Your task to perform on an android device: turn off translation in the chrome app Image 0: 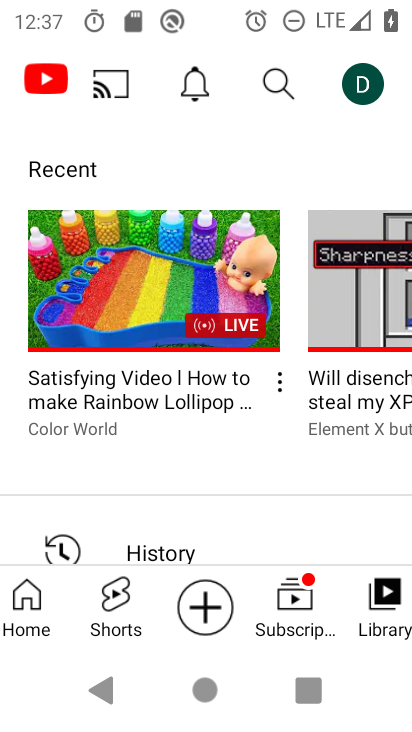
Step 0: press home button
Your task to perform on an android device: turn off translation in the chrome app Image 1: 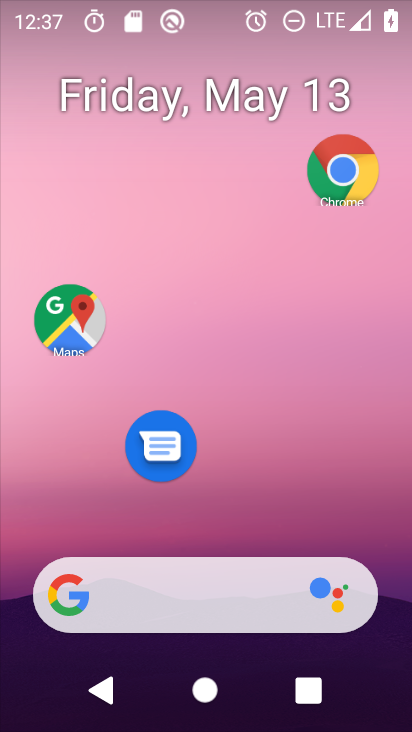
Step 1: drag from (256, 601) to (401, 0)
Your task to perform on an android device: turn off translation in the chrome app Image 2: 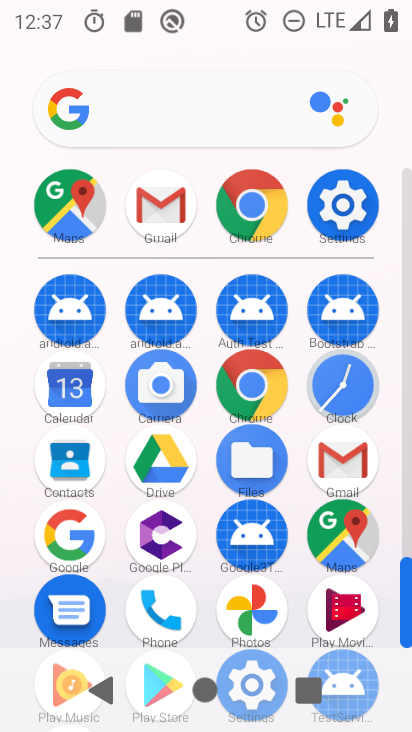
Step 2: click (262, 379)
Your task to perform on an android device: turn off translation in the chrome app Image 3: 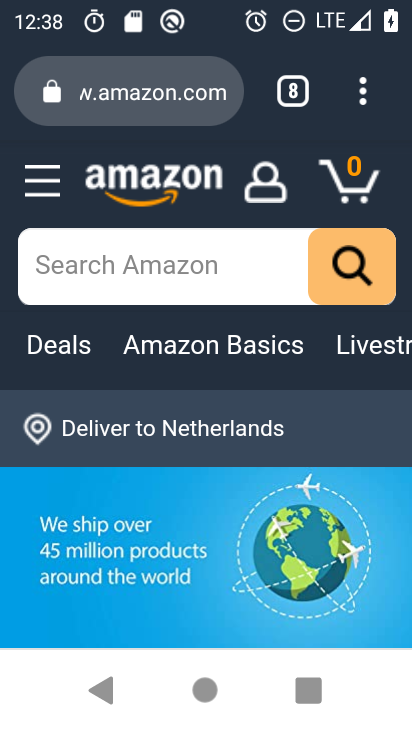
Step 3: drag from (368, 99) to (138, 490)
Your task to perform on an android device: turn off translation in the chrome app Image 4: 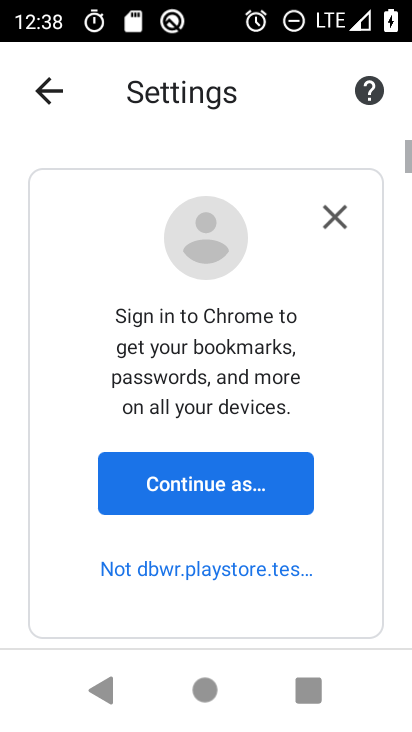
Step 4: drag from (270, 631) to (287, 7)
Your task to perform on an android device: turn off translation in the chrome app Image 5: 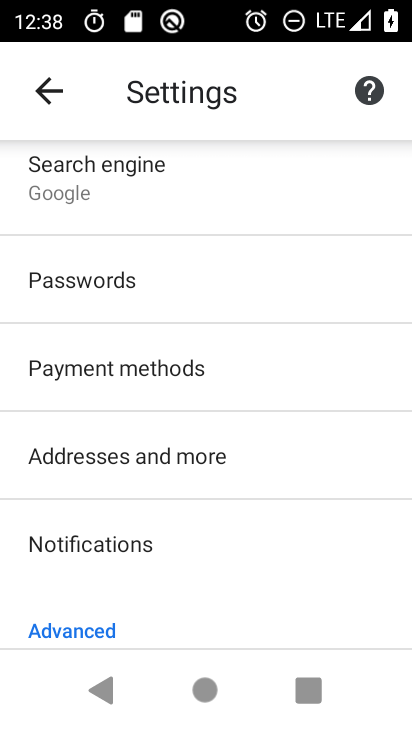
Step 5: drag from (214, 569) to (300, 31)
Your task to perform on an android device: turn off translation in the chrome app Image 6: 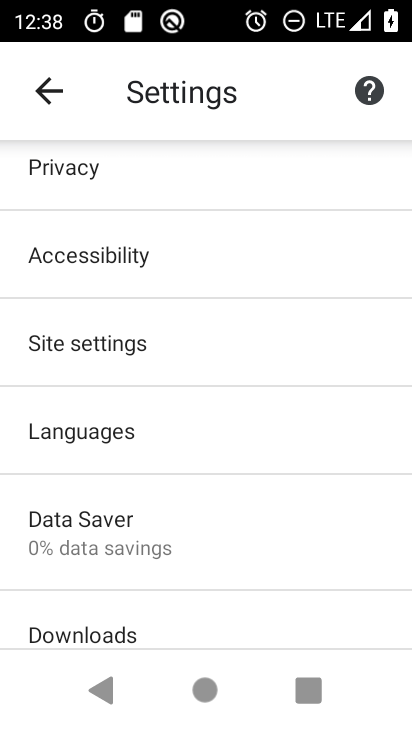
Step 6: click (191, 453)
Your task to perform on an android device: turn off translation in the chrome app Image 7: 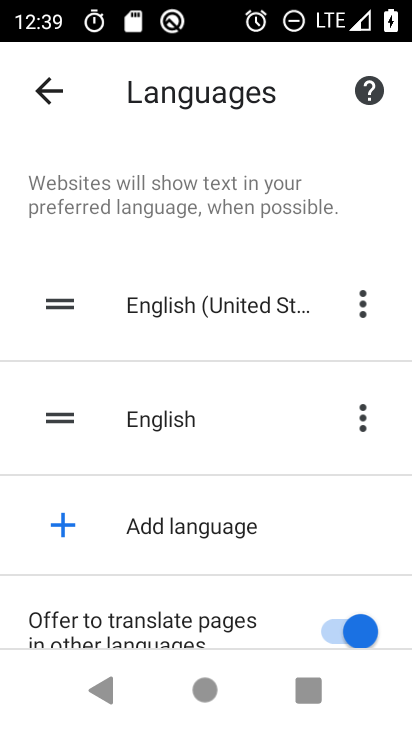
Step 7: drag from (212, 633) to (247, 388)
Your task to perform on an android device: turn off translation in the chrome app Image 8: 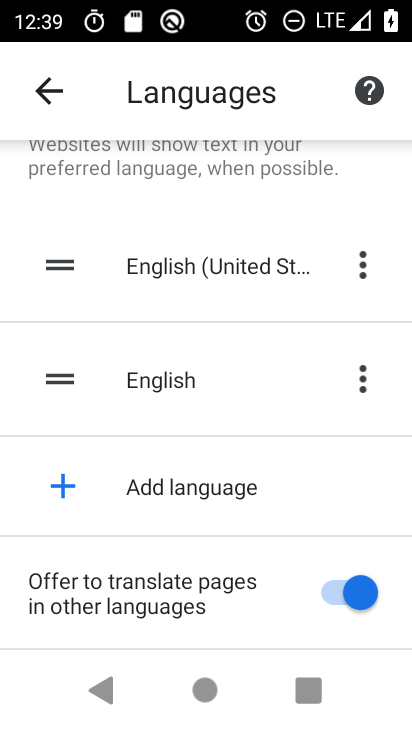
Step 8: click (343, 583)
Your task to perform on an android device: turn off translation in the chrome app Image 9: 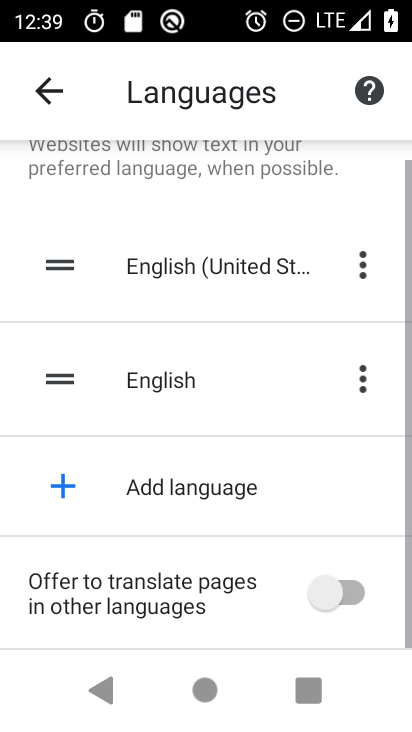
Step 9: task complete